Your task to perform on an android device: toggle notifications settings in the gmail app Image 0: 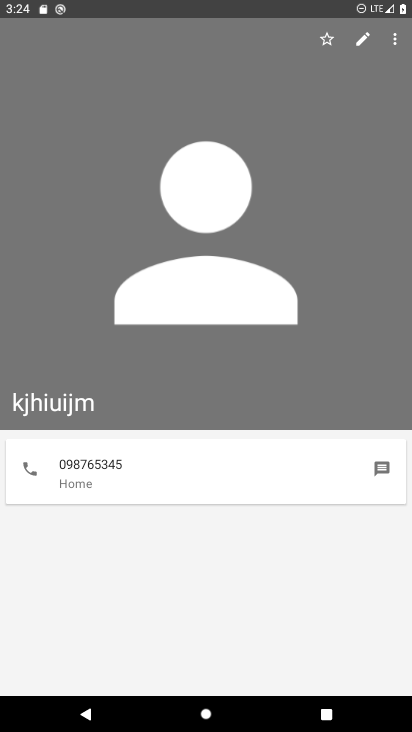
Step 0: press home button
Your task to perform on an android device: toggle notifications settings in the gmail app Image 1: 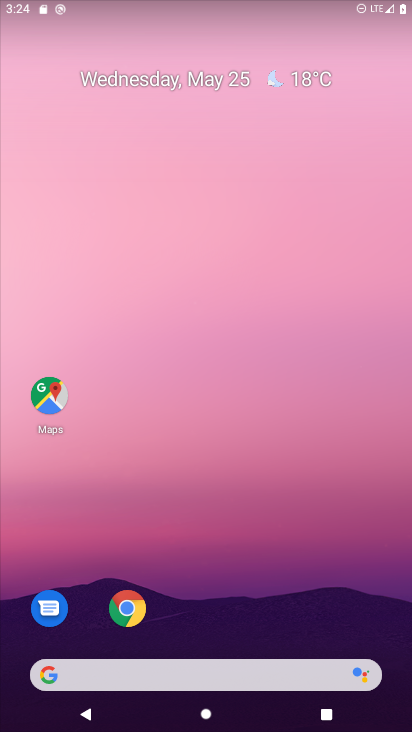
Step 1: drag from (339, 615) to (251, 35)
Your task to perform on an android device: toggle notifications settings in the gmail app Image 2: 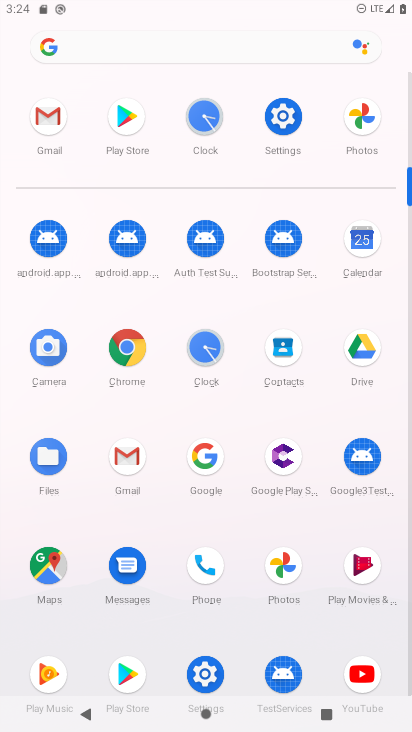
Step 2: click (126, 455)
Your task to perform on an android device: toggle notifications settings in the gmail app Image 3: 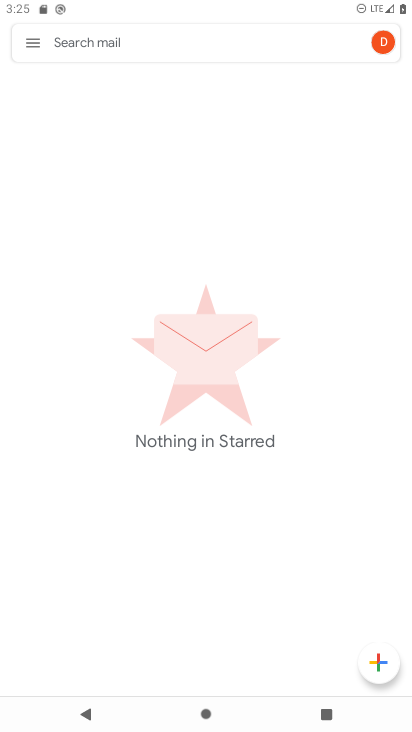
Step 3: click (29, 43)
Your task to perform on an android device: toggle notifications settings in the gmail app Image 4: 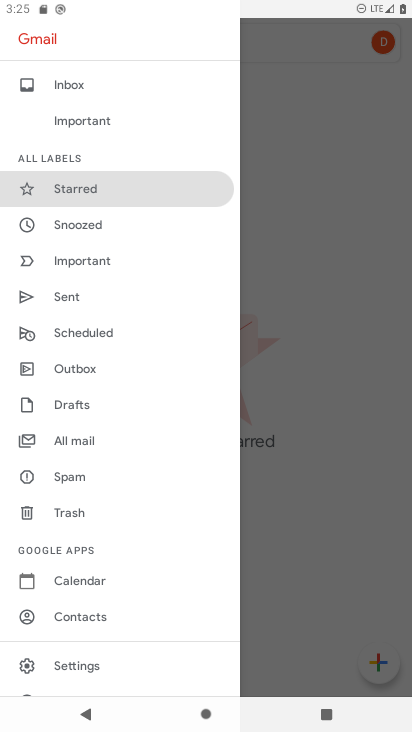
Step 4: click (87, 664)
Your task to perform on an android device: toggle notifications settings in the gmail app Image 5: 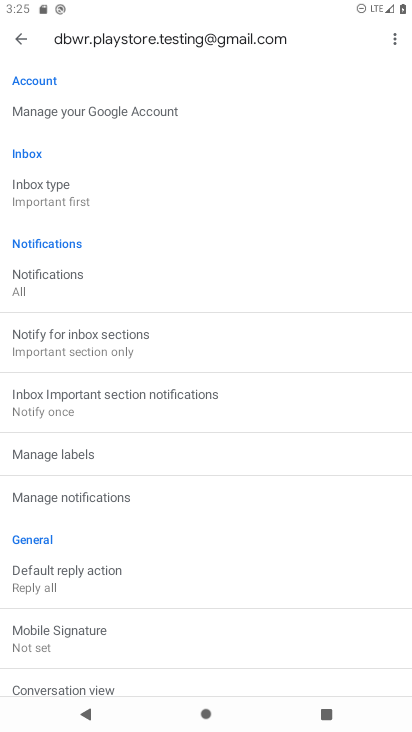
Step 5: click (63, 492)
Your task to perform on an android device: toggle notifications settings in the gmail app Image 6: 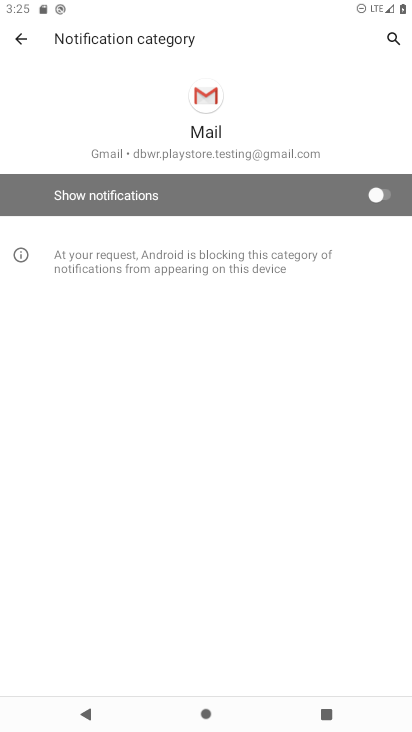
Step 6: click (384, 193)
Your task to perform on an android device: toggle notifications settings in the gmail app Image 7: 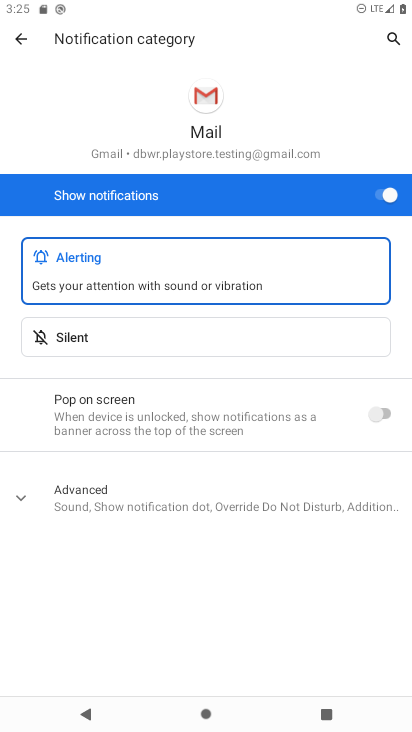
Step 7: task complete